Your task to perform on an android device: change notification settings in the gmail app Image 0: 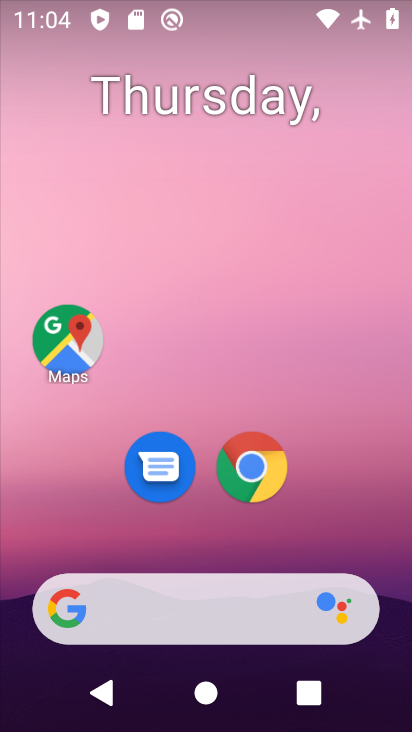
Step 0: drag from (368, 546) to (392, 15)
Your task to perform on an android device: change notification settings in the gmail app Image 1: 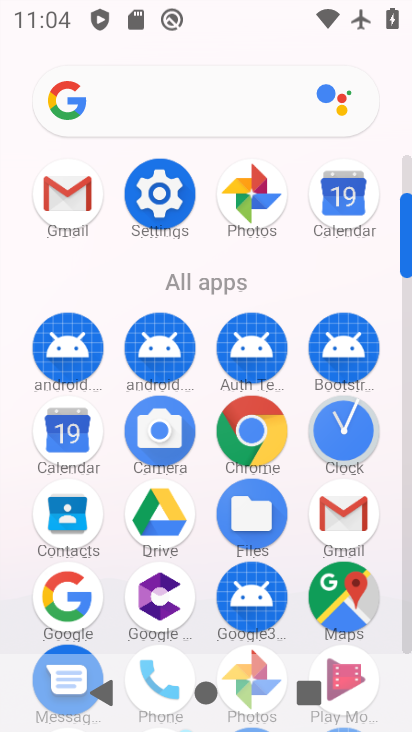
Step 1: click (71, 205)
Your task to perform on an android device: change notification settings in the gmail app Image 2: 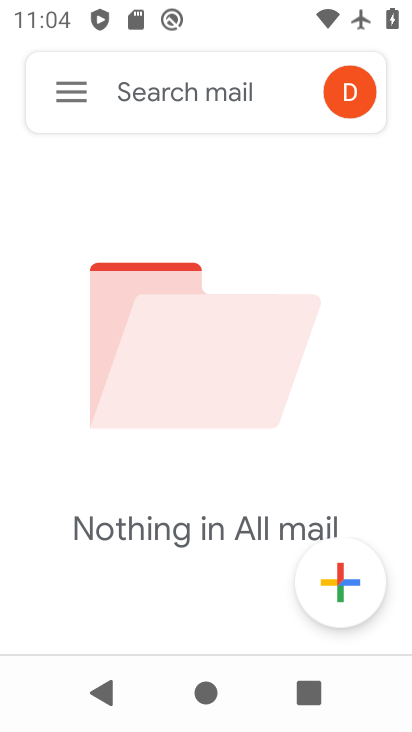
Step 2: click (74, 99)
Your task to perform on an android device: change notification settings in the gmail app Image 3: 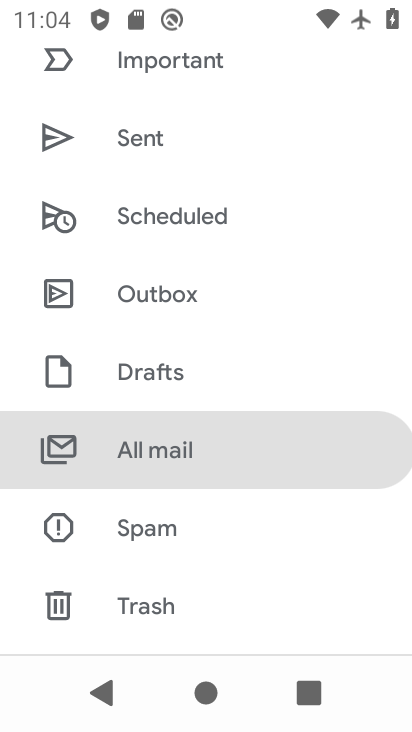
Step 3: drag from (225, 566) to (240, 108)
Your task to perform on an android device: change notification settings in the gmail app Image 4: 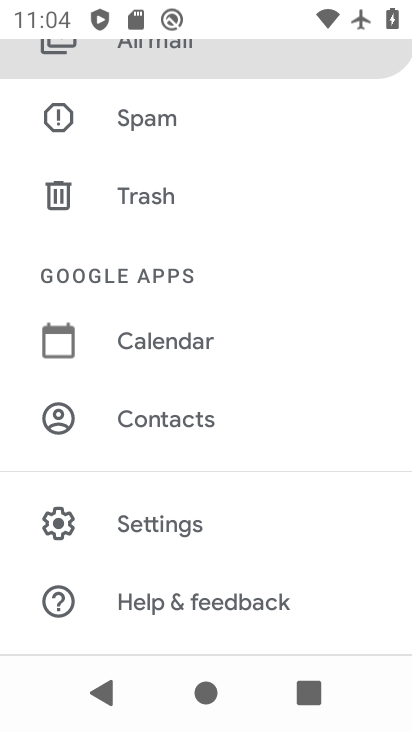
Step 4: click (153, 529)
Your task to perform on an android device: change notification settings in the gmail app Image 5: 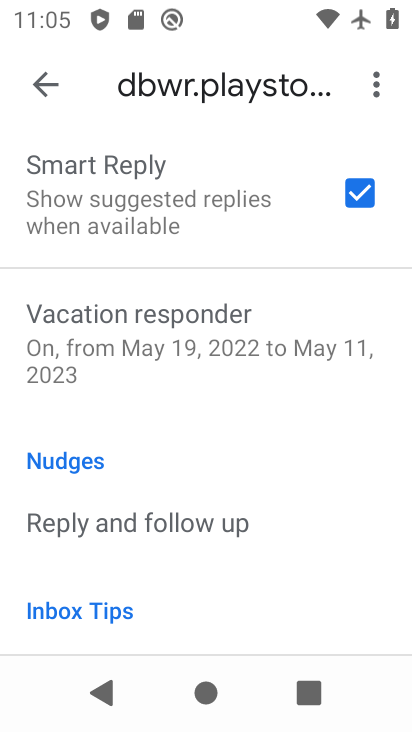
Step 5: click (40, 81)
Your task to perform on an android device: change notification settings in the gmail app Image 6: 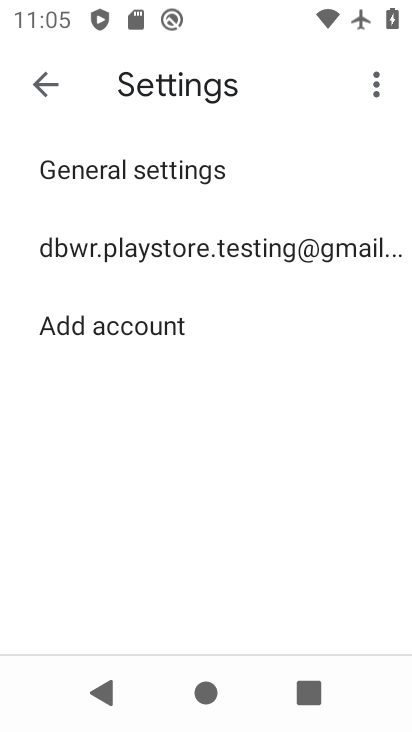
Step 6: click (93, 184)
Your task to perform on an android device: change notification settings in the gmail app Image 7: 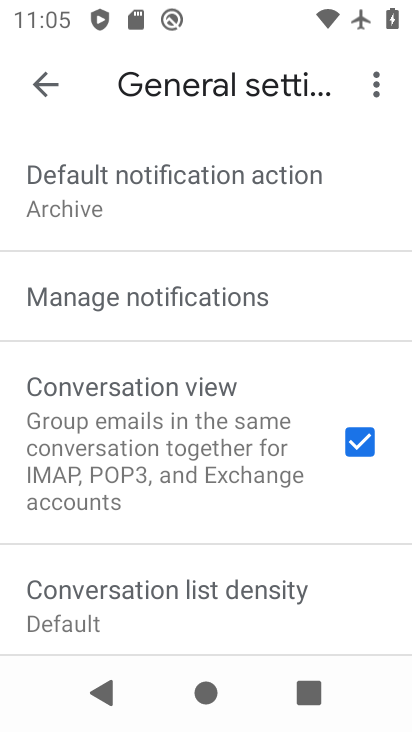
Step 7: click (128, 303)
Your task to perform on an android device: change notification settings in the gmail app Image 8: 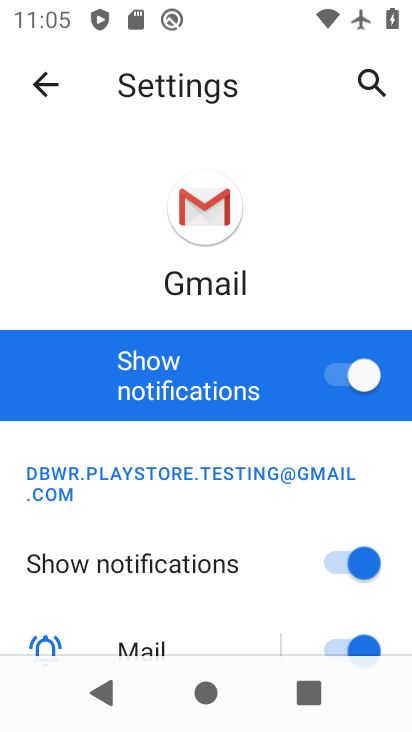
Step 8: click (364, 389)
Your task to perform on an android device: change notification settings in the gmail app Image 9: 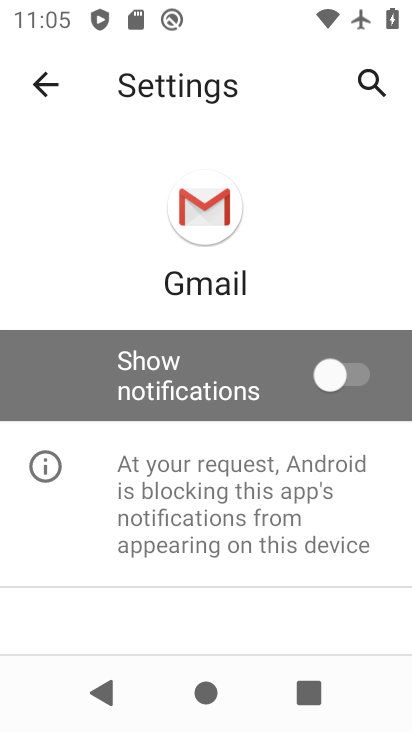
Step 9: task complete